Your task to perform on an android device: See recent photos Image 0: 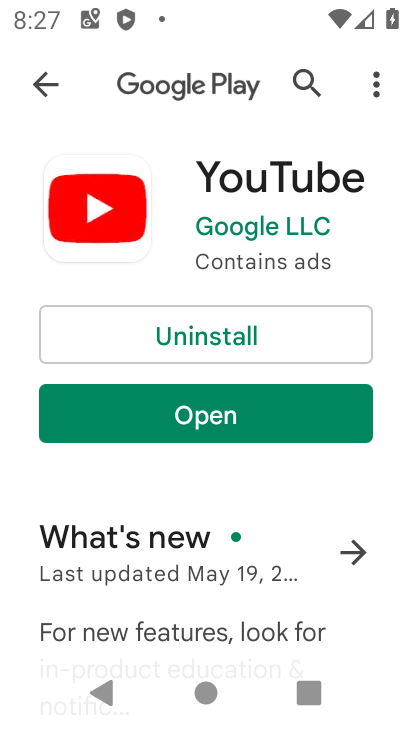
Step 0: press home button
Your task to perform on an android device: See recent photos Image 1: 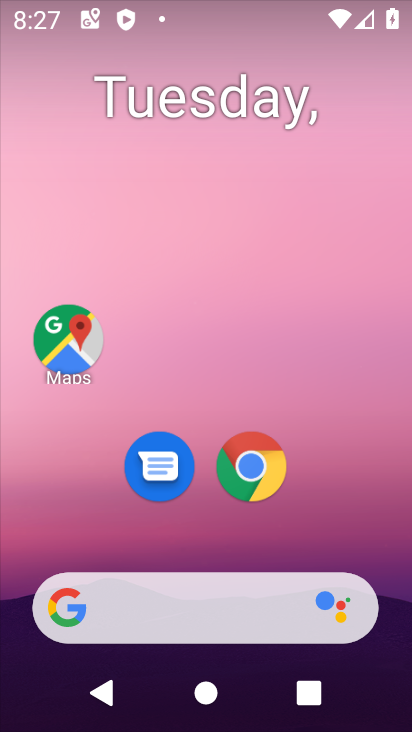
Step 1: drag from (355, 506) to (325, 137)
Your task to perform on an android device: See recent photos Image 2: 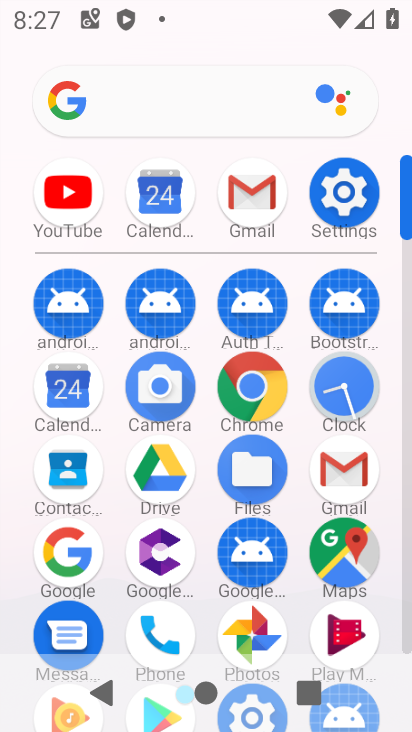
Step 2: click (263, 609)
Your task to perform on an android device: See recent photos Image 3: 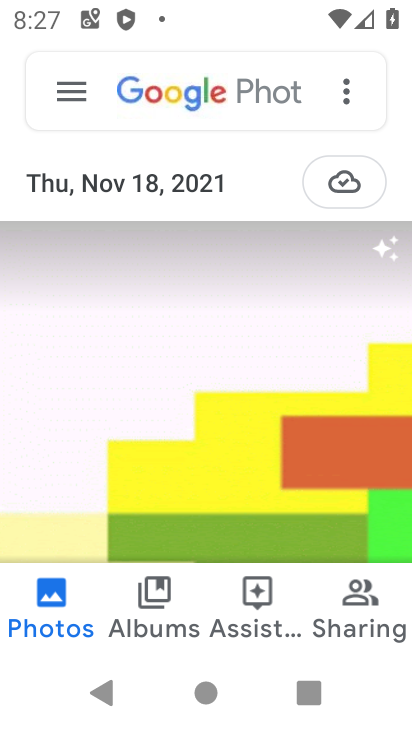
Step 3: task complete